Your task to perform on an android device: turn pop-ups on in chrome Image 0: 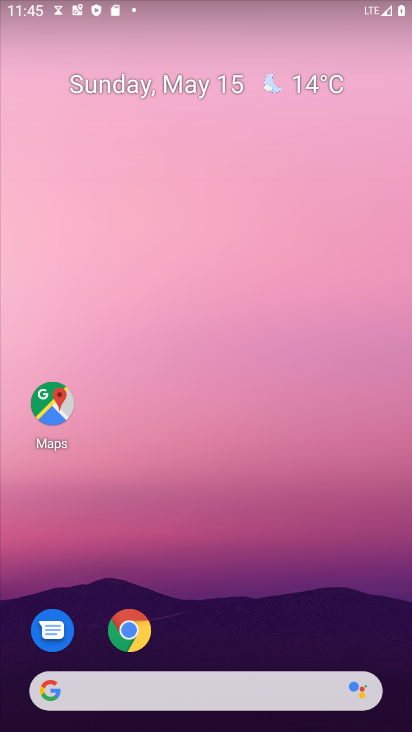
Step 0: press home button
Your task to perform on an android device: turn pop-ups on in chrome Image 1: 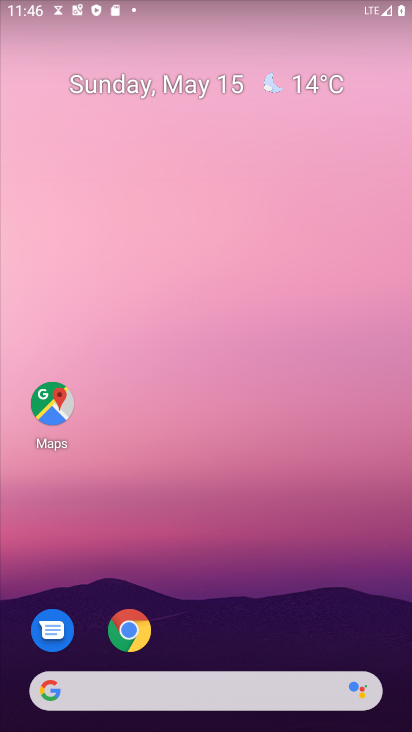
Step 1: click (136, 624)
Your task to perform on an android device: turn pop-ups on in chrome Image 2: 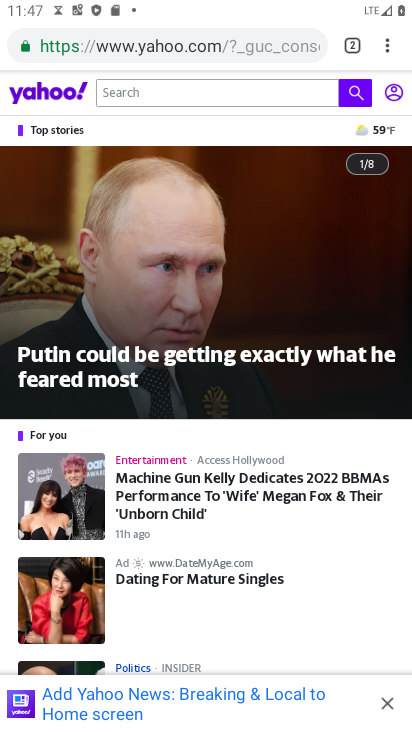
Step 2: click (388, 48)
Your task to perform on an android device: turn pop-ups on in chrome Image 3: 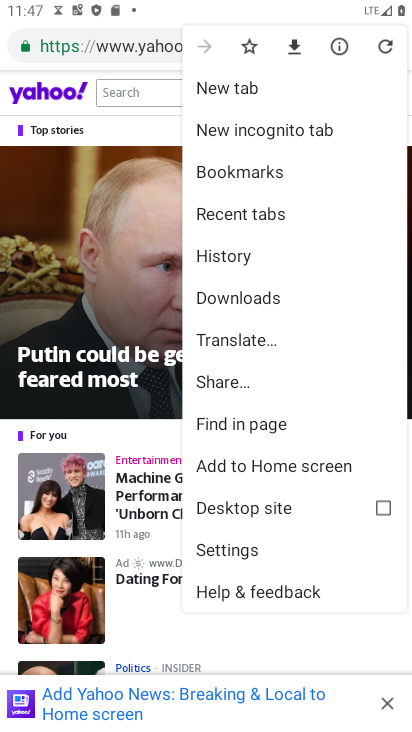
Step 3: click (234, 552)
Your task to perform on an android device: turn pop-ups on in chrome Image 4: 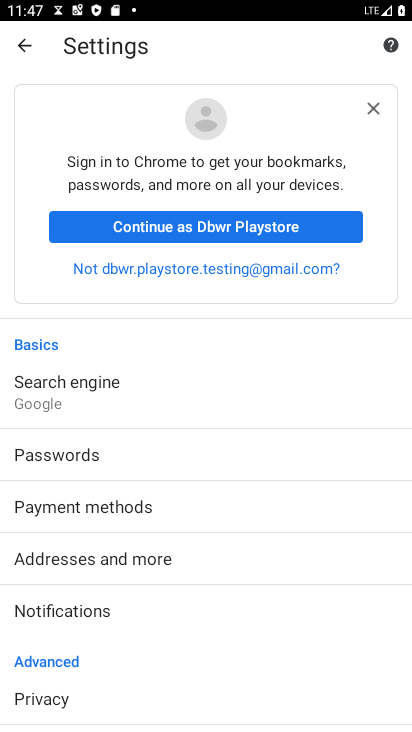
Step 4: drag from (84, 686) to (130, 246)
Your task to perform on an android device: turn pop-ups on in chrome Image 5: 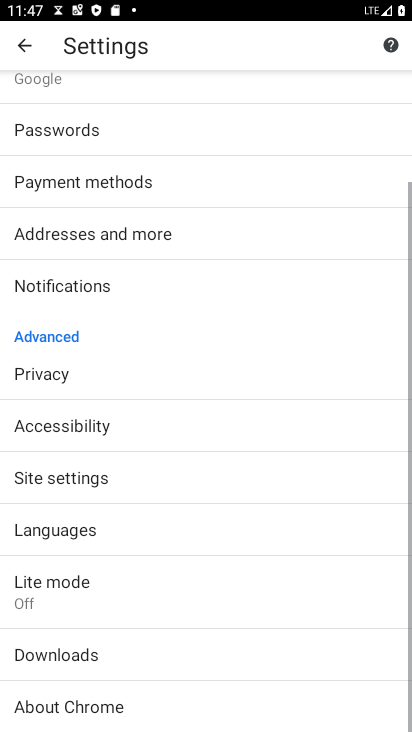
Step 5: click (89, 484)
Your task to perform on an android device: turn pop-ups on in chrome Image 6: 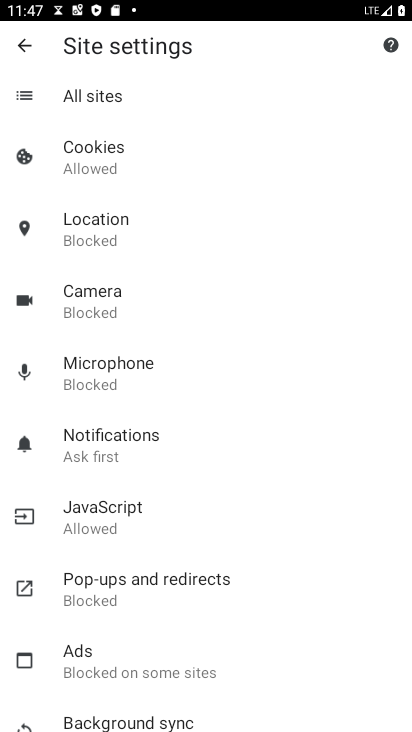
Step 6: click (117, 587)
Your task to perform on an android device: turn pop-ups on in chrome Image 7: 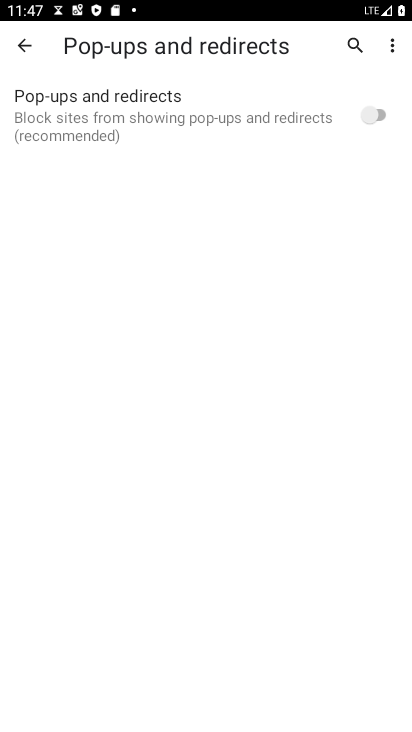
Step 7: click (380, 120)
Your task to perform on an android device: turn pop-ups on in chrome Image 8: 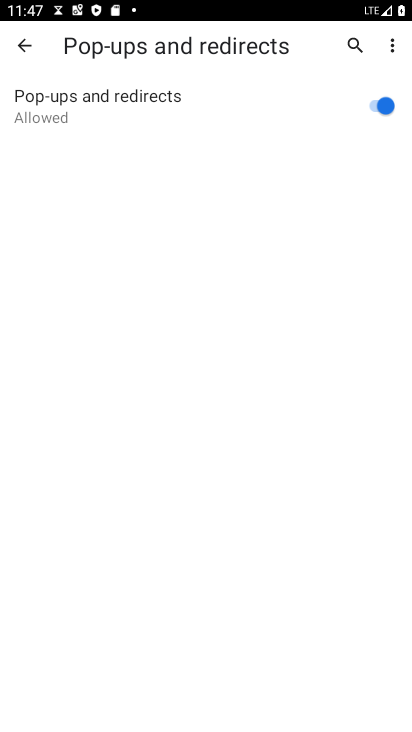
Step 8: task complete